Your task to perform on an android device: open app "Google Chrome" (install if not already installed) Image 0: 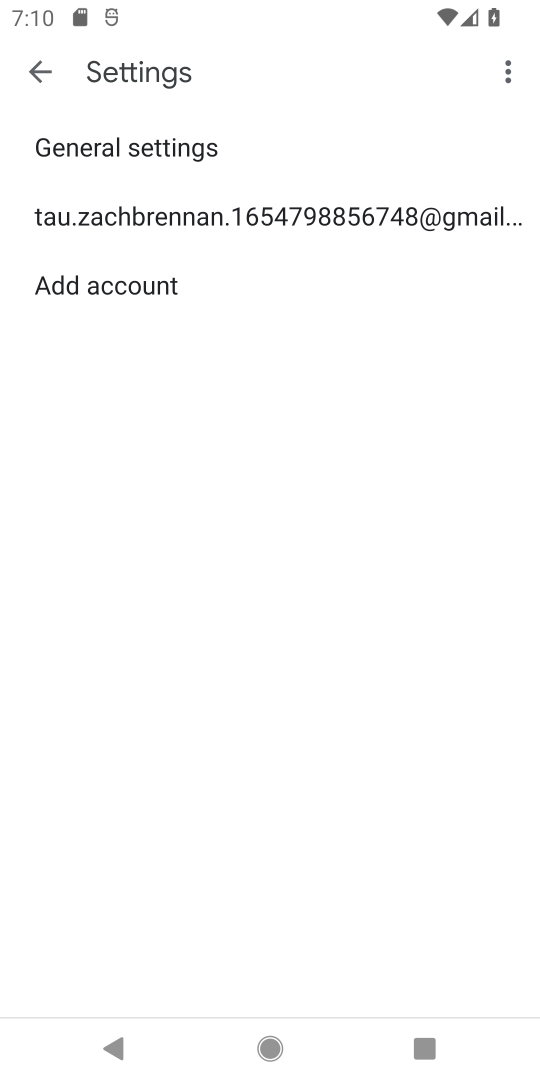
Step 0: click (41, 72)
Your task to perform on an android device: open app "Google Chrome" (install if not already installed) Image 1: 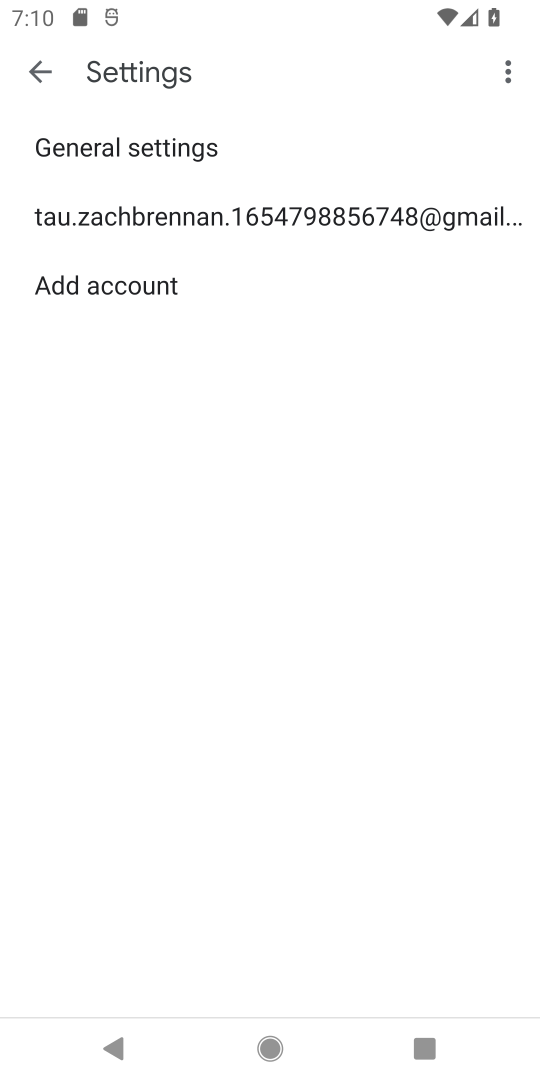
Step 1: click (41, 72)
Your task to perform on an android device: open app "Google Chrome" (install if not already installed) Image 2: 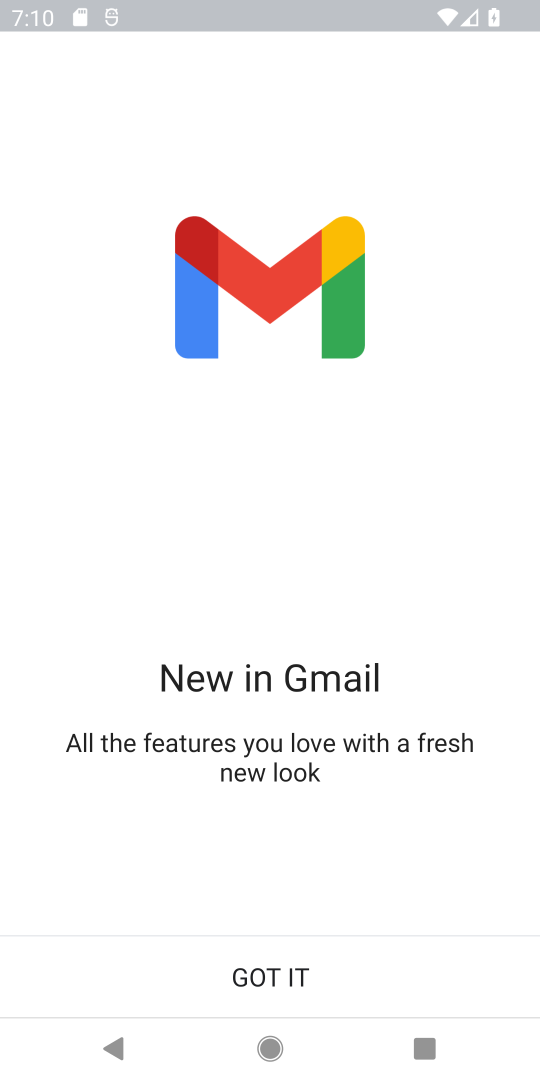
Step 2: press back button
Your task to perform on an android device: open app "Google Chrome" (install if not already installed) Image 3: 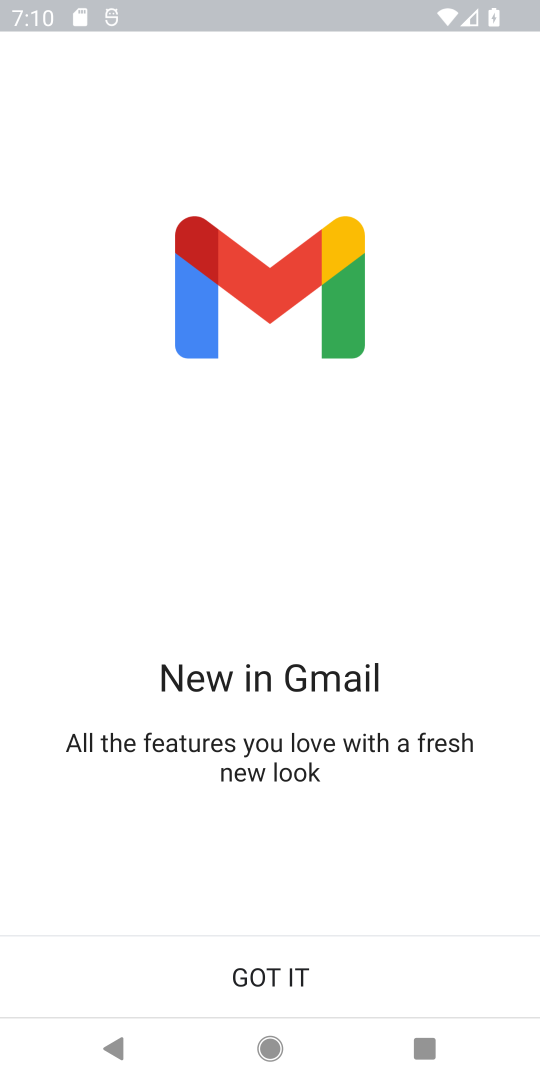
Step 3: press back button
Your task to perform on an android device: open app "Google Chrome" (install if not already installed) Image 4: 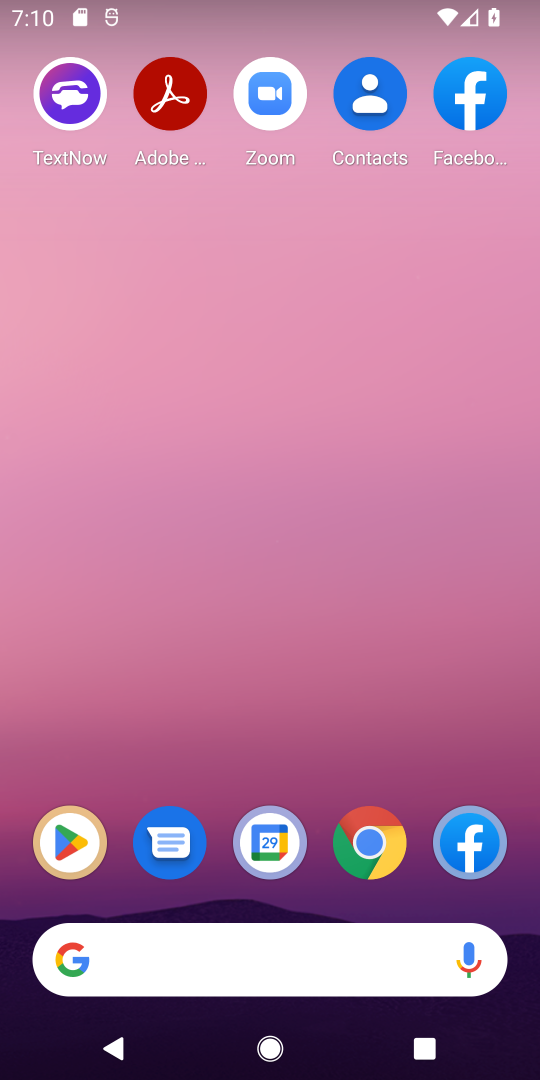
Step 4: drag from (175, 645) to (8, 117)
Your task to perform on an android device: open app "Google Chrome" (install if not already installed) Image 5: 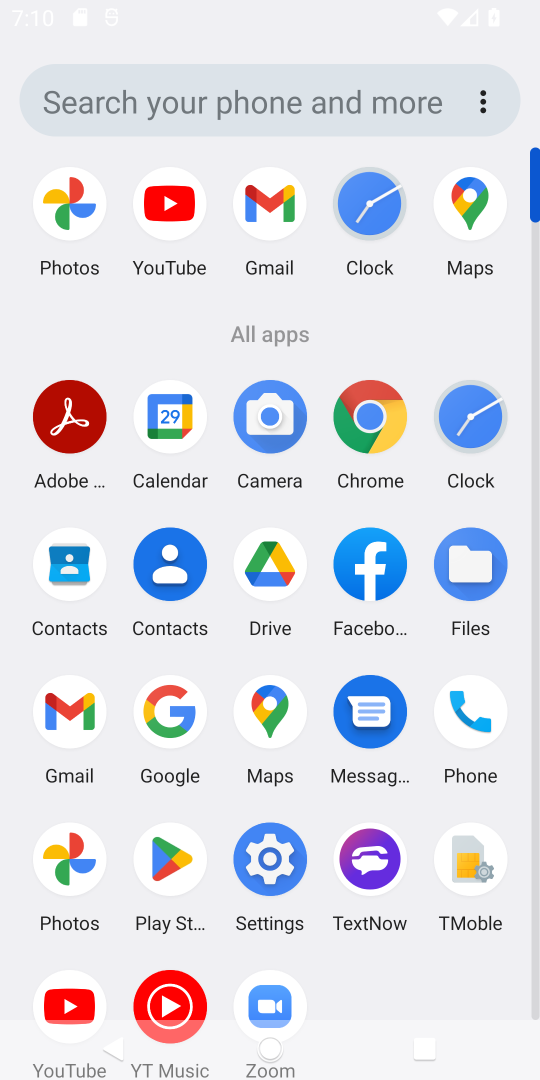
Step 5: drag from (170, 582) to (118, 247)
Your task to perform on an android device: open app "Google Chrome" (install if not already installed) Image 6: 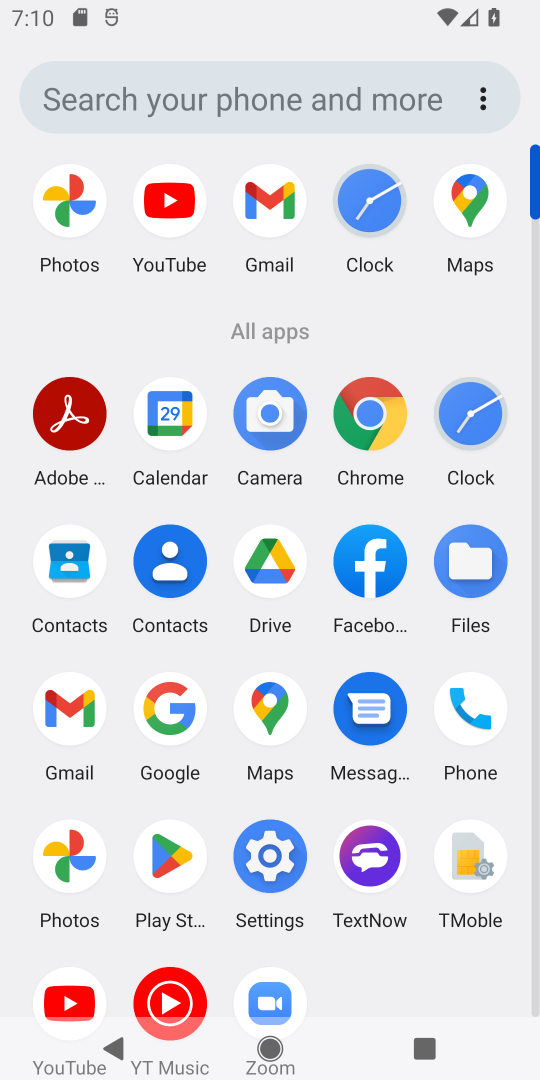
Step 6: click (175, 845)
Your task to perform on an android device: open app "Google Chrome" (install if not already installed) Image 7: 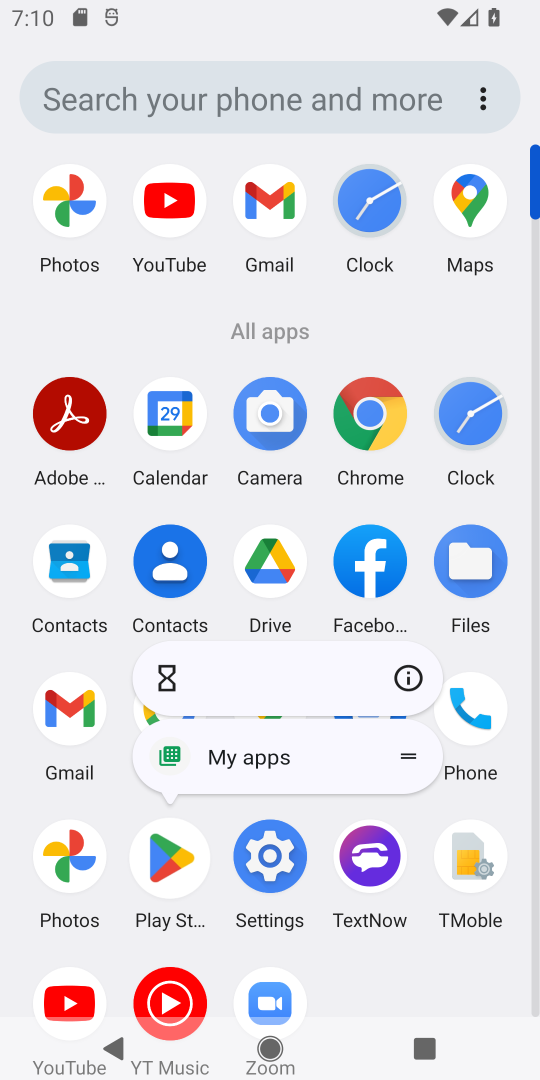
Step 7: click (173, 848)
Your task to perform on an android device: open app "Google Chrome" (install if not already installed) Image 8: 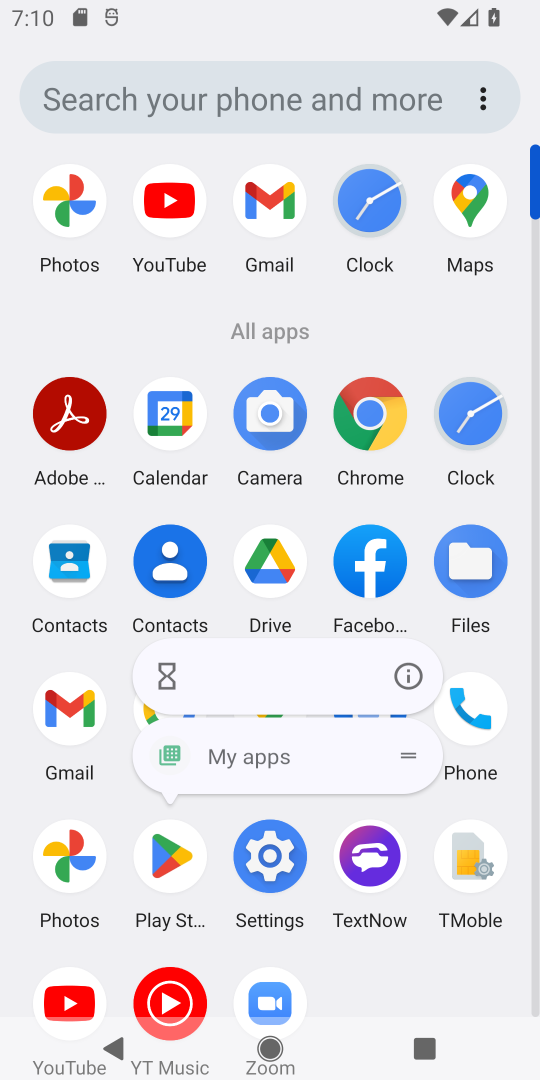
Step 8: click (174, 847)
Your task to perform on an android device: open app "Google Chrome" (install if not already installed) Image 9: 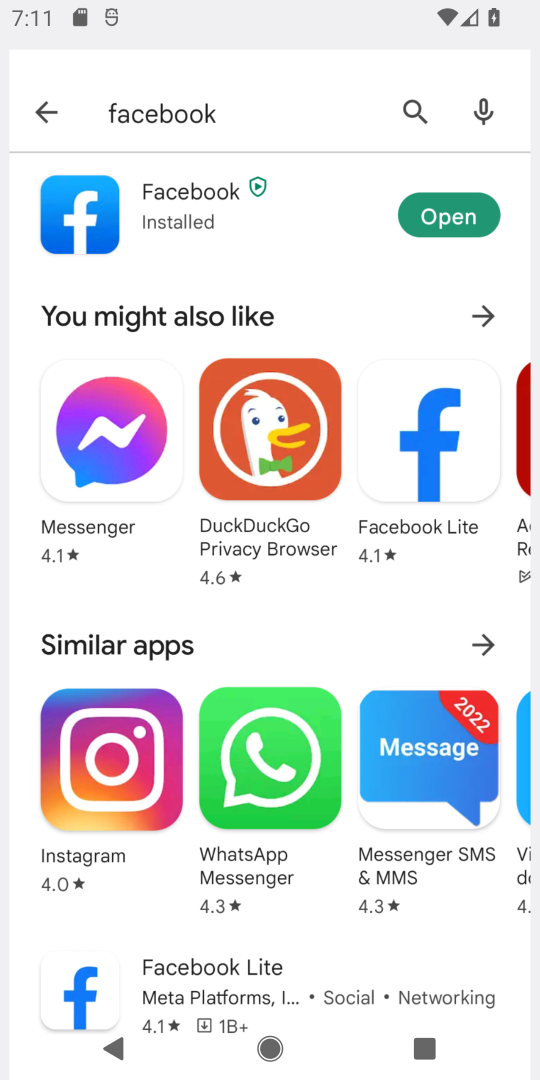
Step 9: click (177, 845)
Your task to perform on an android device: open app "Google Chrome" (install if not already installed) Image 10: 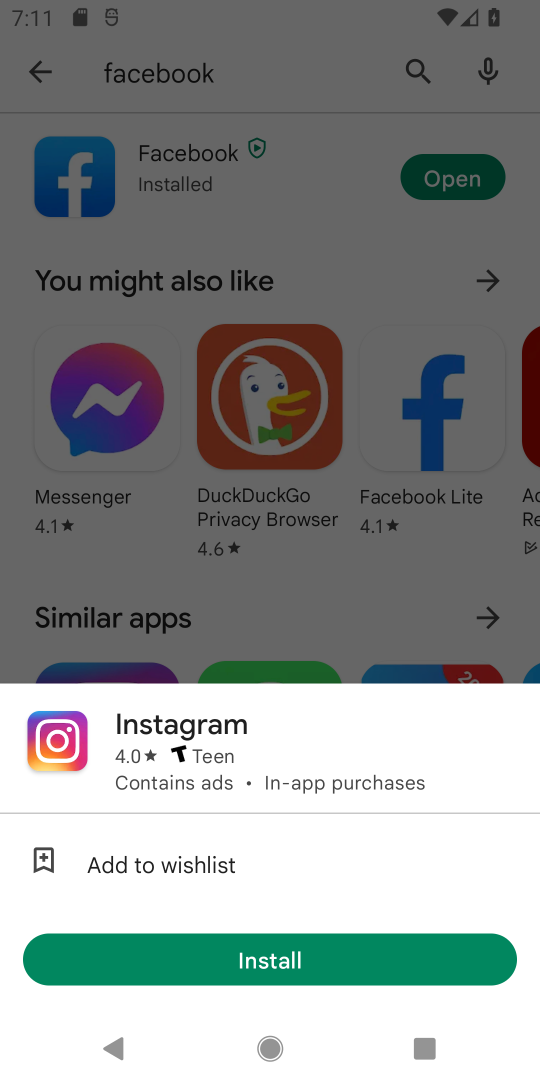
Step 10: click (21, 64)
Your task to perform on an android device: open app "Google Chrome" (install if not already installed) Image 11: 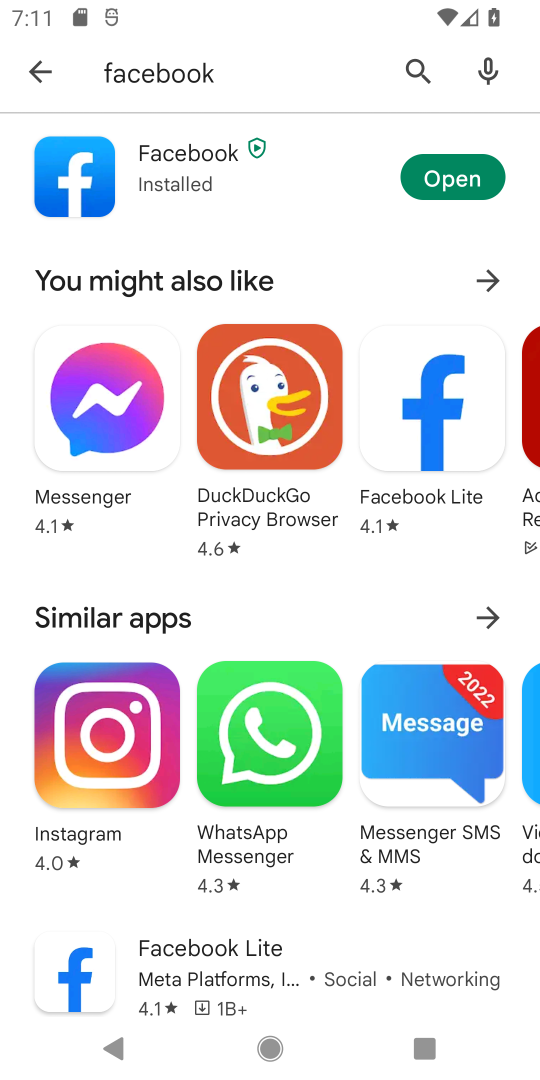
Step 11: click (36, 77)
Your task to perform on an android device: open app "Google Chrome" (install if not already installed) Image 12: 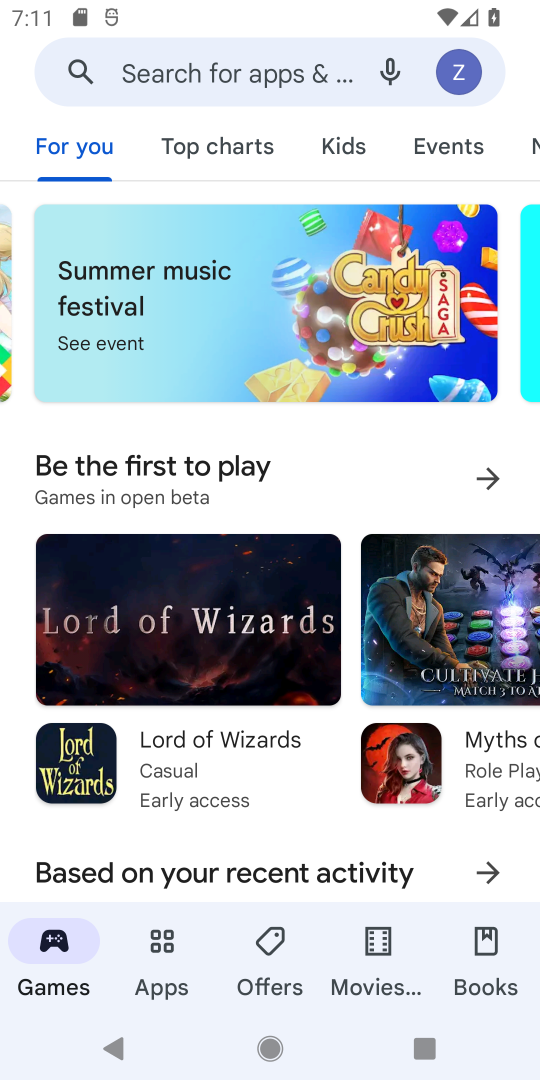
Step 12: click (125, 67)
Your task to perform on an android device: open app "Google Chrome" (install if not already installed) Image 13: 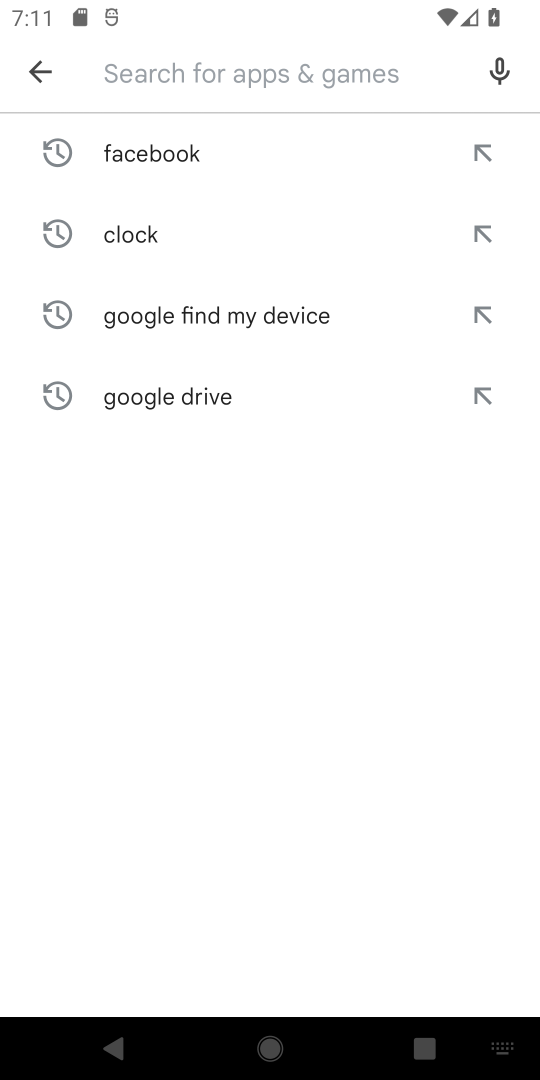
Step 13: type "Google Chrome"
Your task to perform on an android device: open app "Google Chrome" (install if not already installed) Image 14: 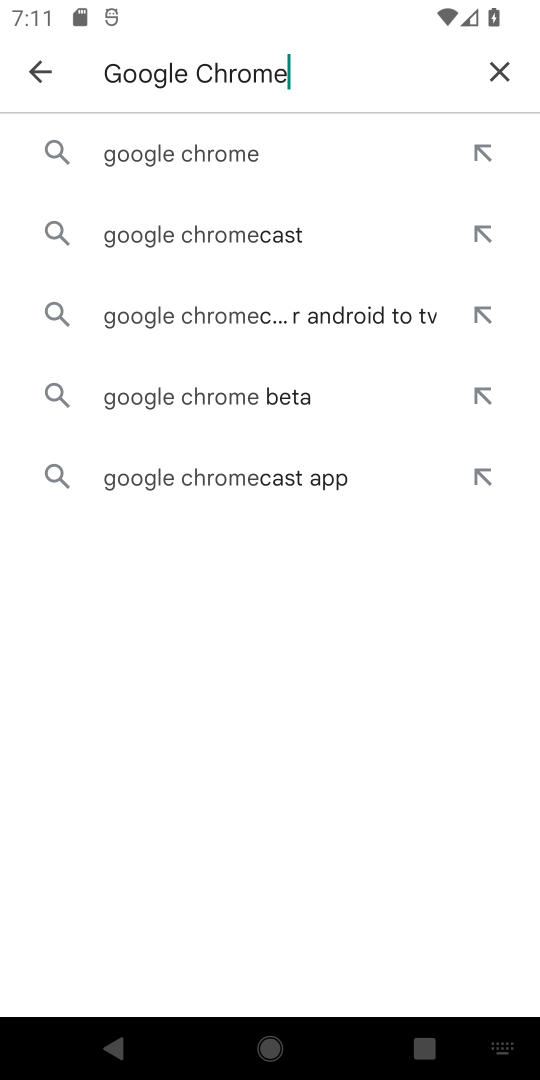
Step 14: click (188, 139)
Your task to perform on an android device: open app "Google Chrome" (install if not already installed) Image 15: 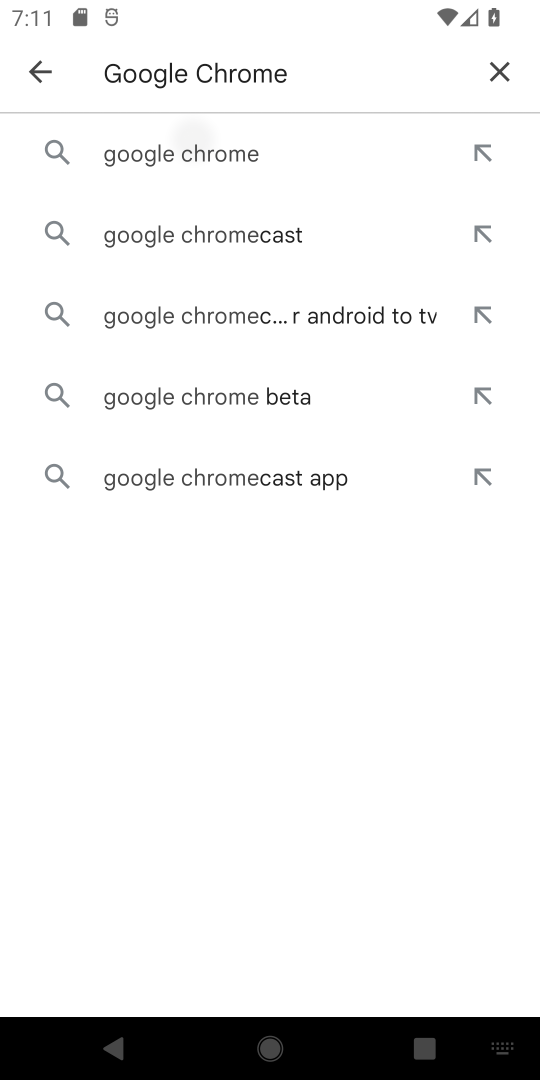
Step 15: click (188, 139)
Your task to perform on an android device: open app "Google Chrome" (install if not already installed) Image 16: 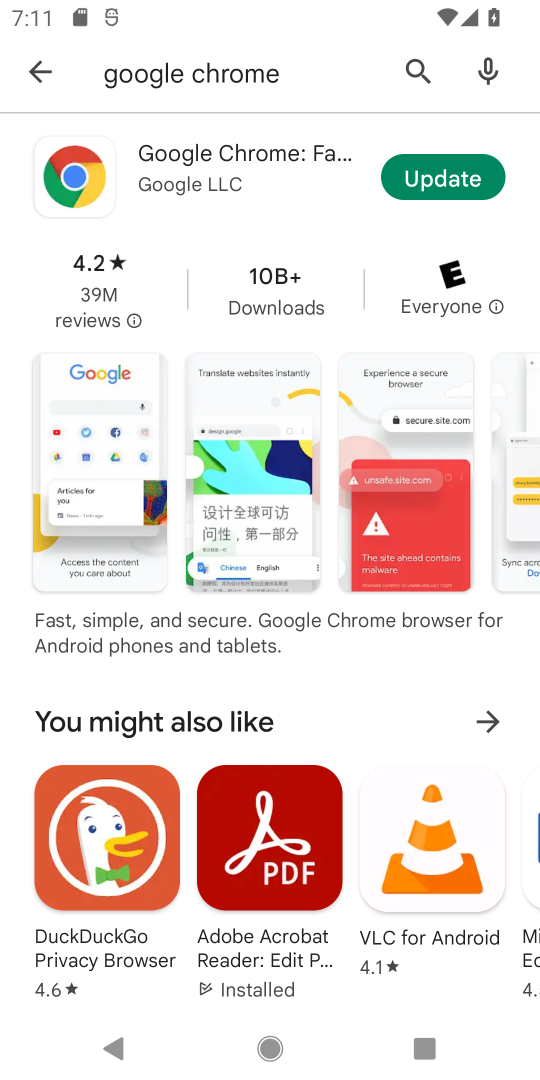
Step 16: click (447, 174)
Your task to perform on an android device: open app "Google Chrome" (install if not already installed) Image 17: 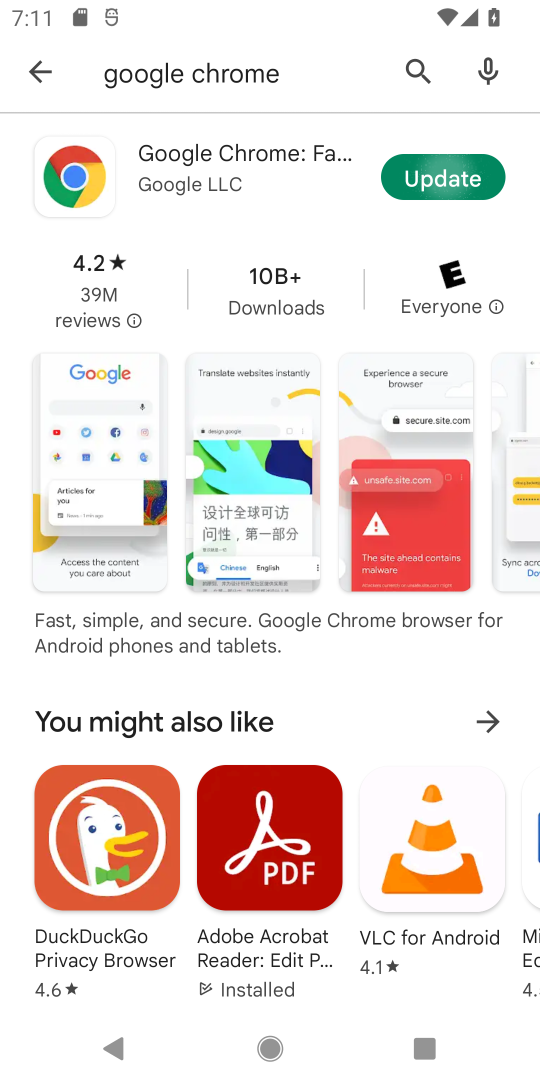
Step 17: click (441, 176)
Your task to perform on an android device: open app "Google Chrome" (install if not already installed) Image 18: 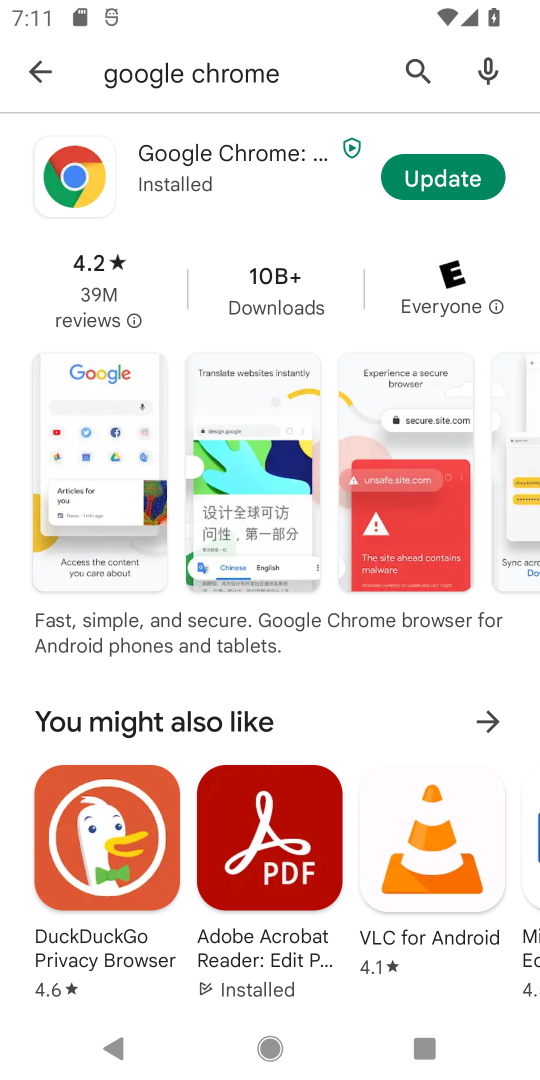
Step 18: click (441, 176)
Your task to perform on an android device: open app "Google Chrome" (install if not already installed) Image 19: 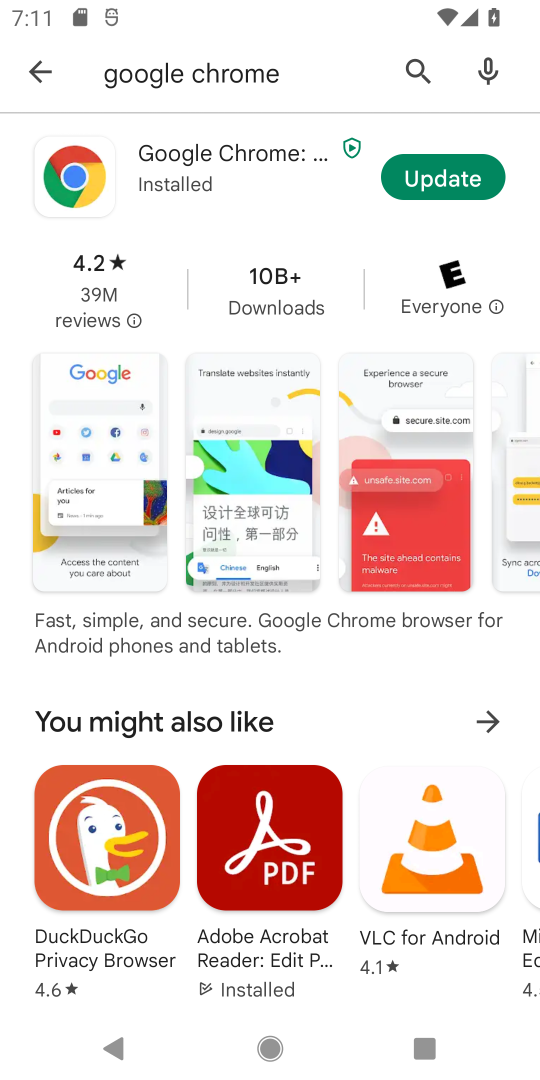
Step 19: click (441, 176)
Your task to perform on an android device: open app "Google Chrome" (install if not already installed) Image 20: 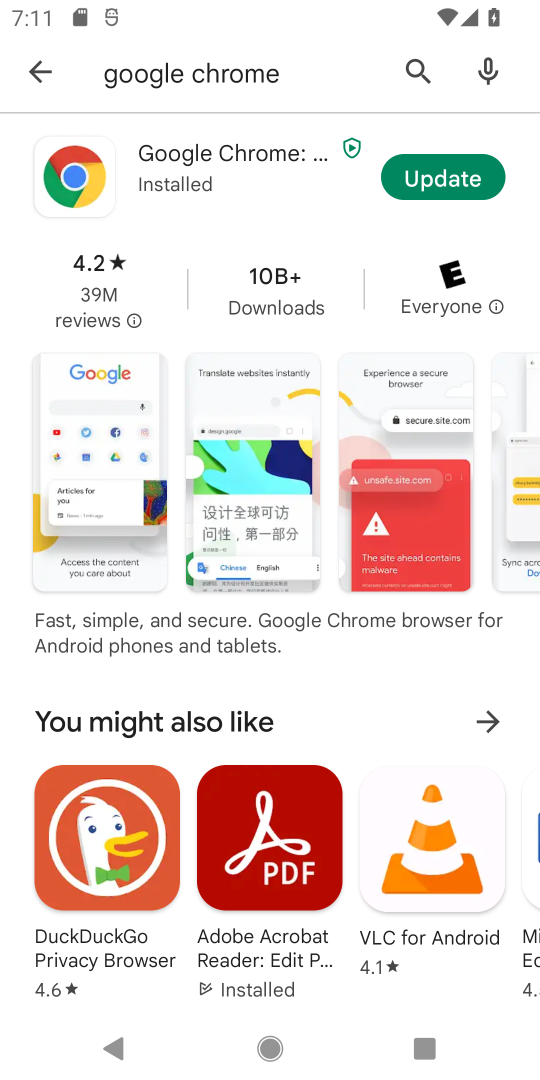
Step 20: task complete